Your task to perform on an android device: Open Google Maps Image 0: 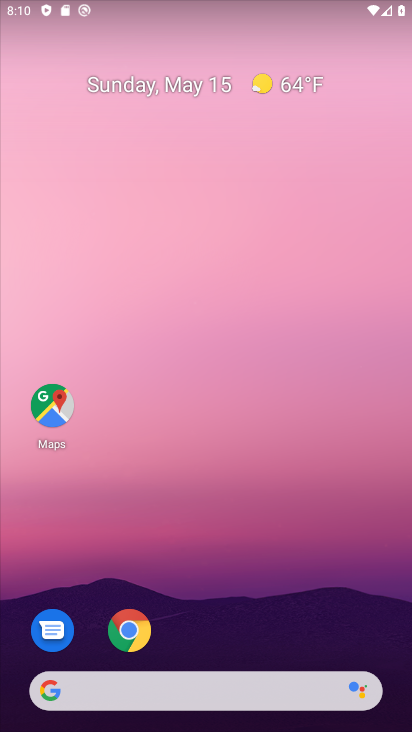
Step 0: drag from (291, 496) to (294, 4)
Your task to perform on an android device: Open Google Maps Image 1: 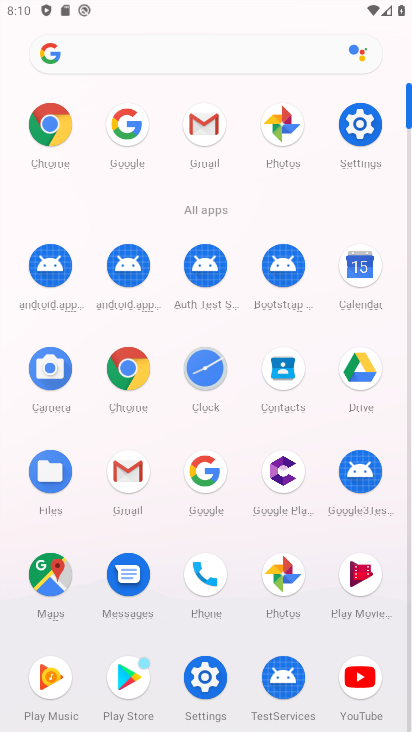
Step 1: press home button
Your task to perform on an android device: Open Google Maps Image 2: 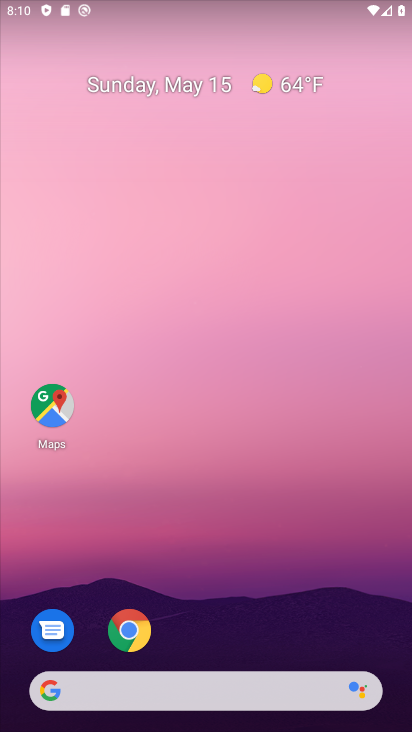
Step 2: click (288, 60)
Your task to perform on an android device: Open Google Maps Image 3: 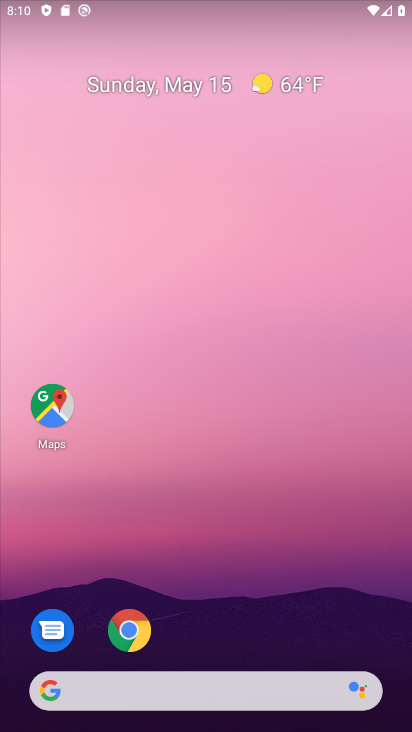
Step 3: click (315, 95)
Your task to perform on an android device: Open Google Maps Image 4: 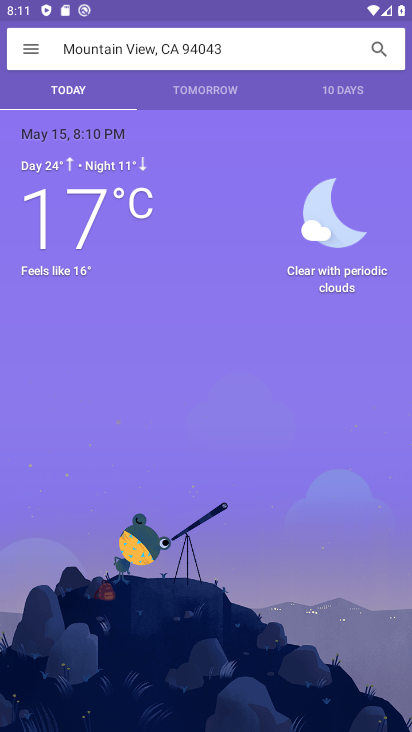
Step 4: task complete